Your task to perform on an android device: find snoozed emails in the gmail app Image 0: 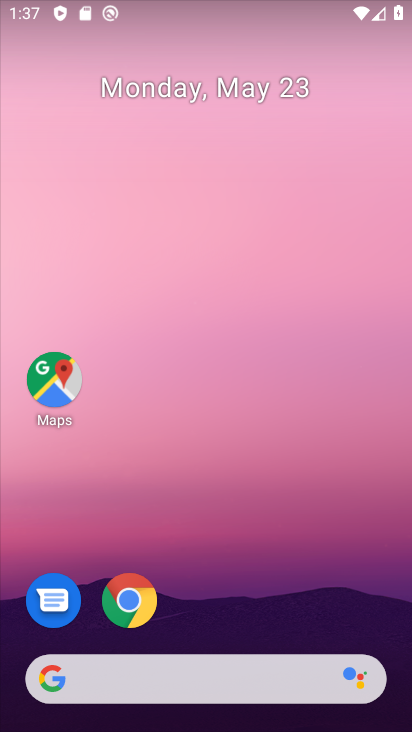
Step 0: drag from (229, 634) to (188, 131)
Your task to perform on an android device: find snoozed emails in the gmail app Image 1: 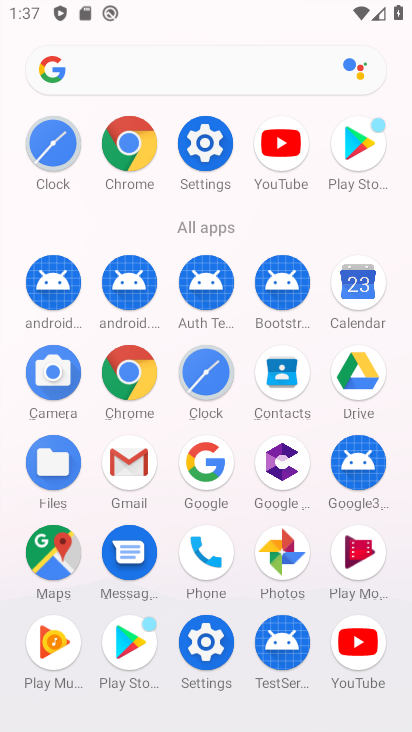
Step 1: click (139, 474)
Your task to perform on an android device: find snoozed emails in the gmail app Image 2: 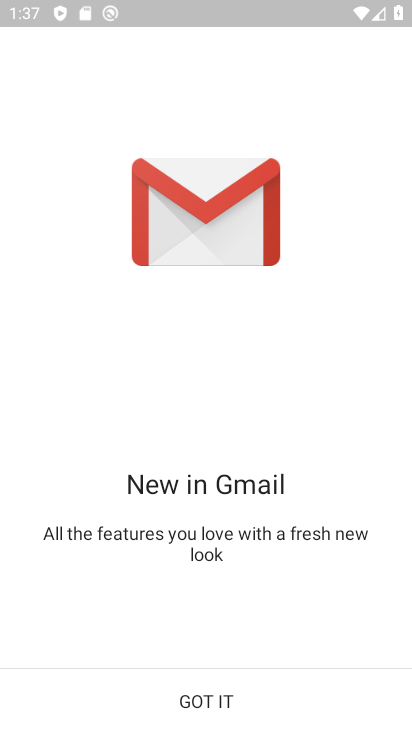
Step 2: click (254, 715)
Your task to perform on an android device: find snoozed emails in the gmail app Image 3: 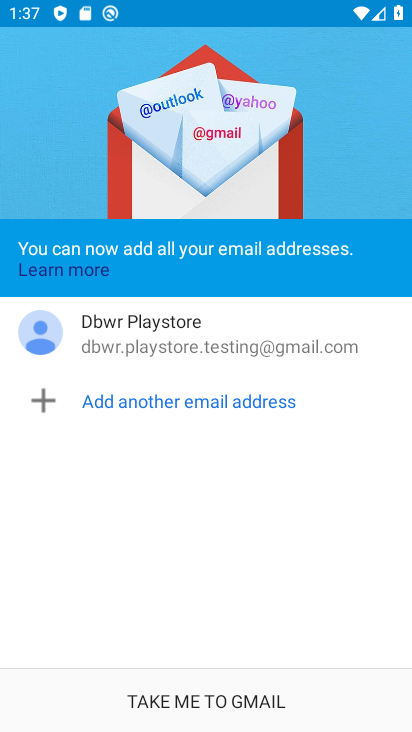
Step 3: click (254, 715)
Your task to perform on an android device: find snoozed emails in the gmail app Image 4: 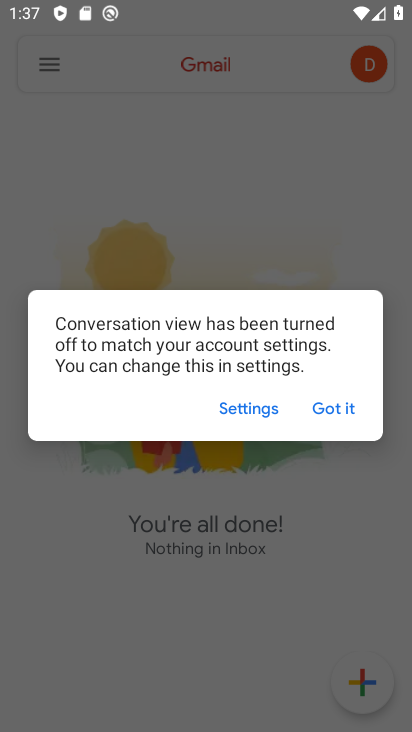
Step 4: click (345, 405)
Your task to perform on an android device: find snoozed emails in the gmail app Image 5: 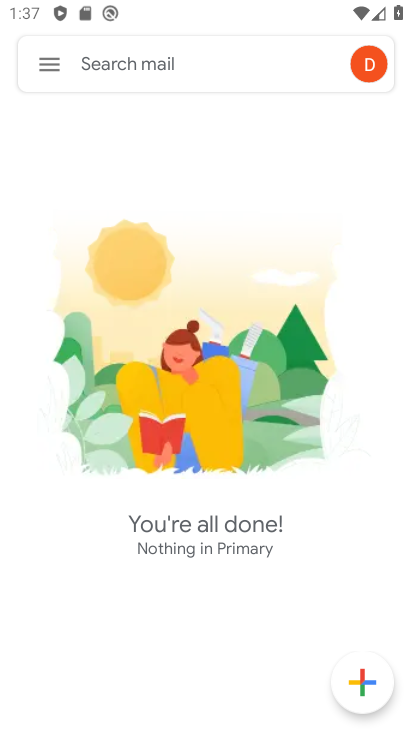
Step 5: click (50, 87)
Your task to perform on an android device: find snoozed emails in the gmail app Image 6: 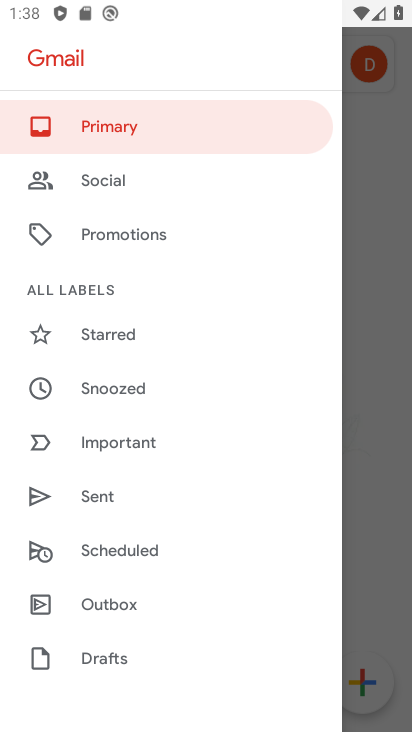
Step 6: click (163, 389)
Your task to perform on an android device: find snoozed emails in the gmail app Image 7: 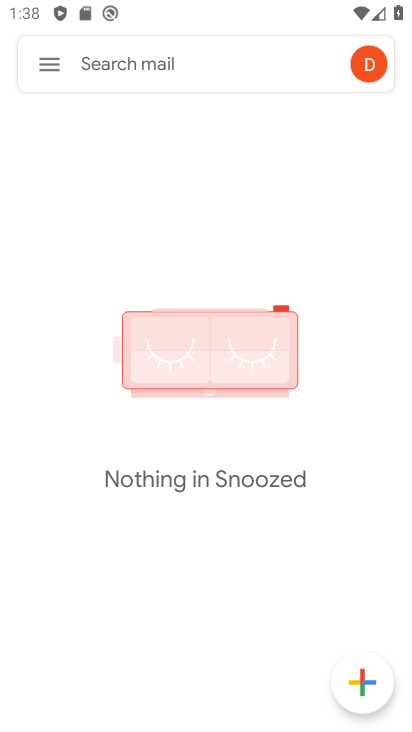
Step 7: task complete